Your task to perform on an android device: Open Reddit.com Image 0: 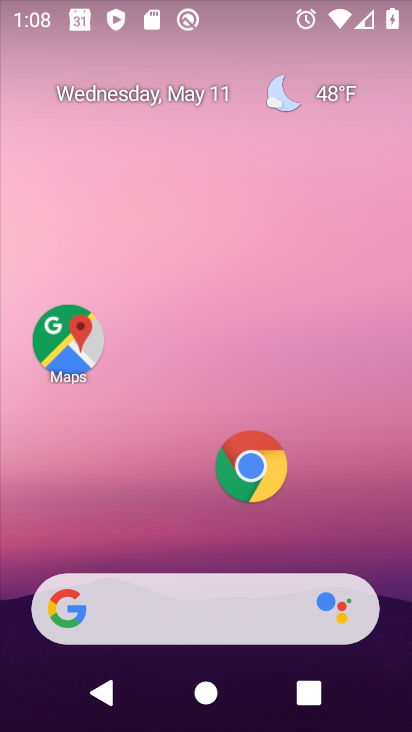
Step 0: click (267, 474)
Your task to perform on an android device: Open Reddit.com Image 1: 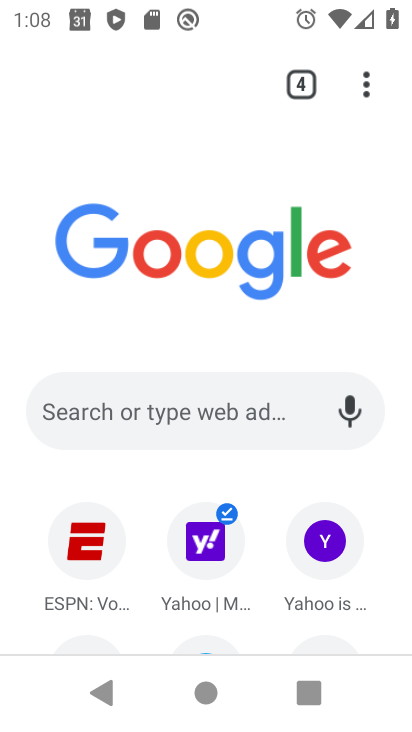
Step 1: click (304, 84)
Your task to perform on an android device: Open Reddit.com Image 2: 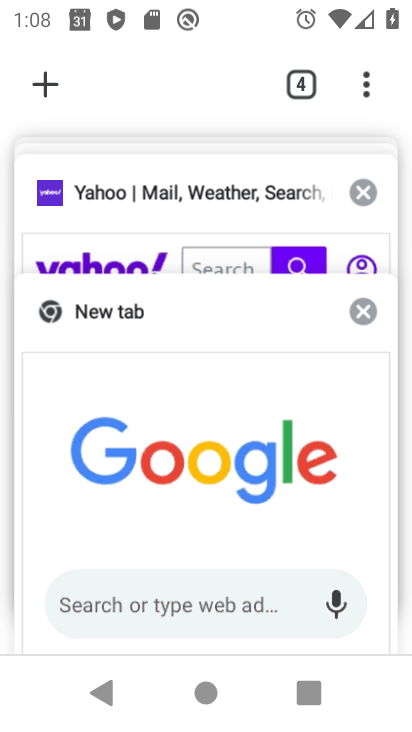
Step 2: click (43, 78)
Your task to perform on an android device: Open Reddit.com Image 3: 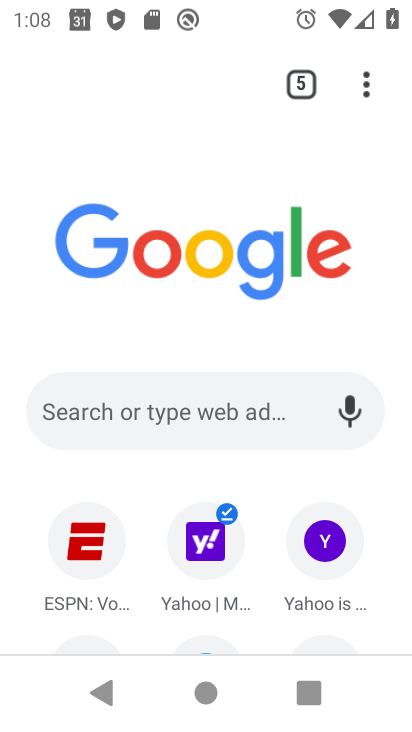
Step 3: click (171, 395)
Your task to perform on an android device: Open Reddit.com Image 4: 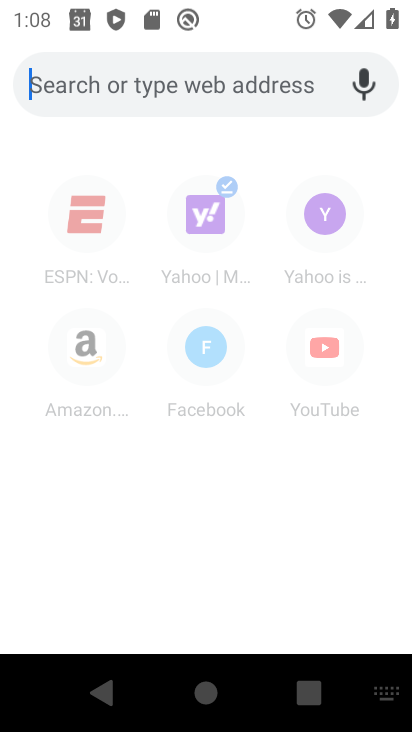
Step 4: type "reddit.com"
Your task to perform on an android device: Open Reddit.com Image 5: 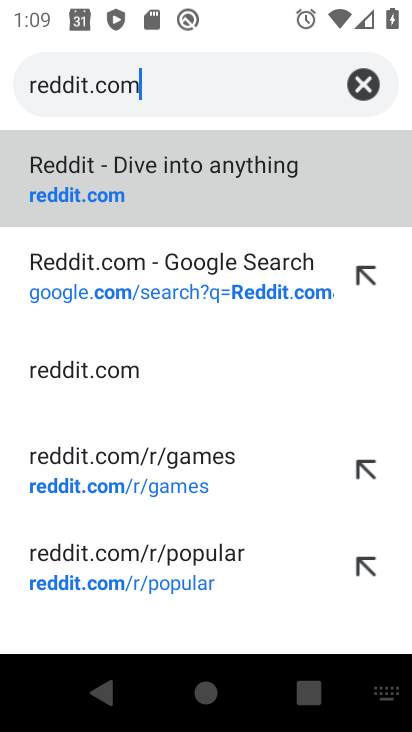
Step 5: click (115, 188)
Your task to perform on an android device: Open Reddit.com Image 6: 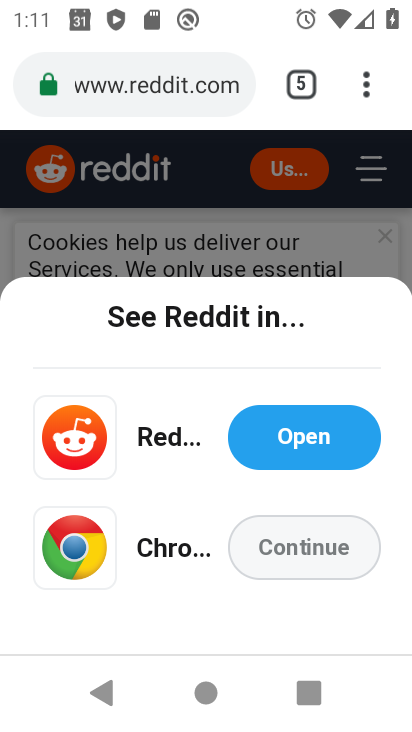
Step 6: task complete